Your task to perform on an android device: What is the recent news? Image 0: 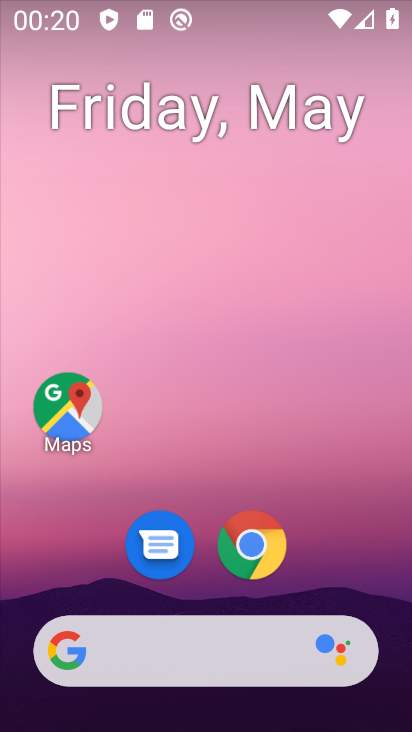
Step 0: click (176, 668)
Your task to perform on an android device: What is the recent news? Image 1: 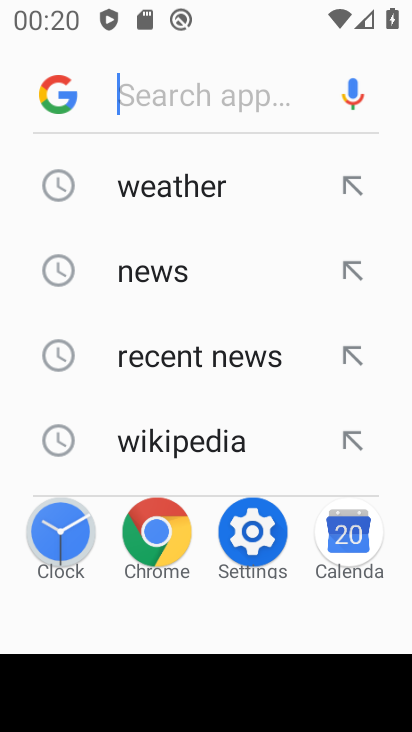
Step 1: click (206, 357)
Your task to perform on an android device: What is the recent news? Image 2: 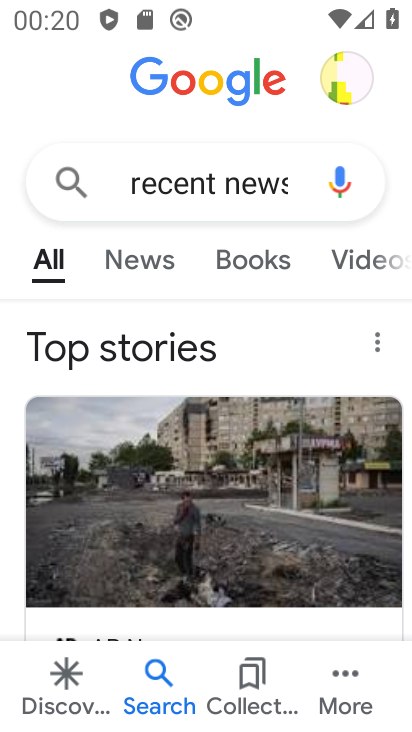
Step 2: task complete